Your task to perform on an android device: Open calendar and show me the third week of next month Image 0: 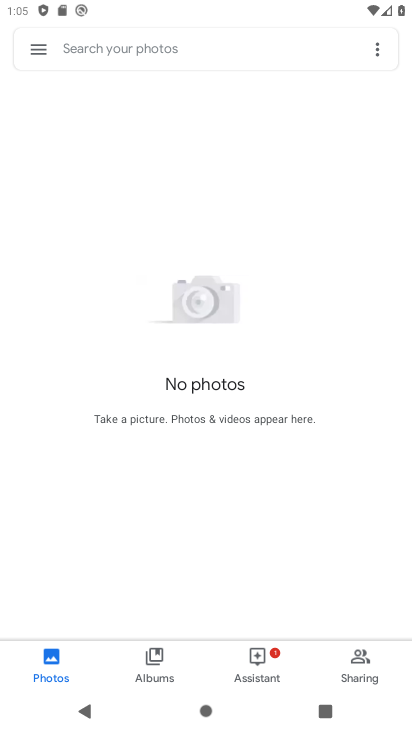
Step 0: press home button
Your task to perform on an android device: Open calendar and show me the third week of next month Image 1: 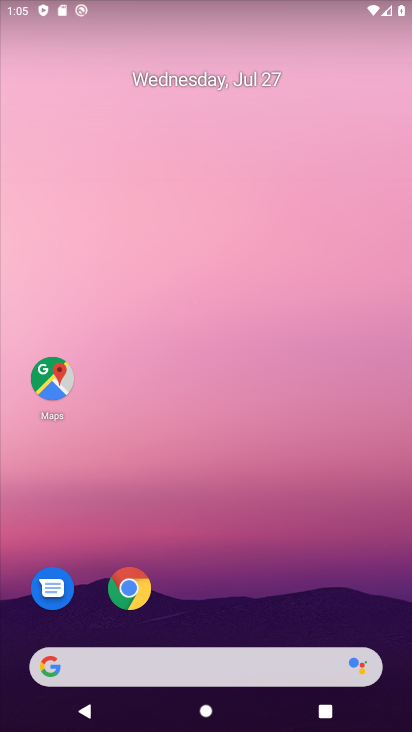
Step 1: drag from (184, 598) to (148, 137)
Your task to perform on an android device: Open calendar and show me the third week of next month Image 2: 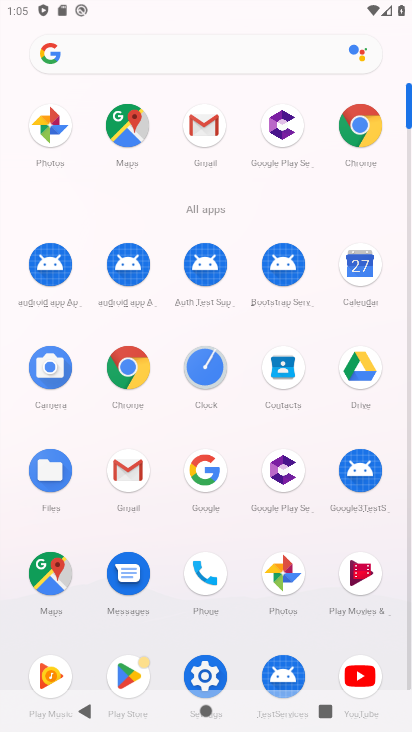
Step 2: click (364, 288)
Your task to perform on an android device: Open calendar and show me the third week of next month Image 3: 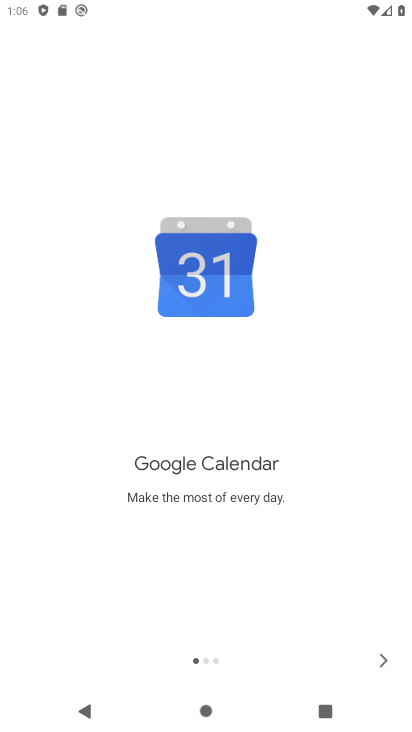
Step 3: click (383, 667)
Your task to perform on an android device: Open calendar and show me the third week of next month Image 4: 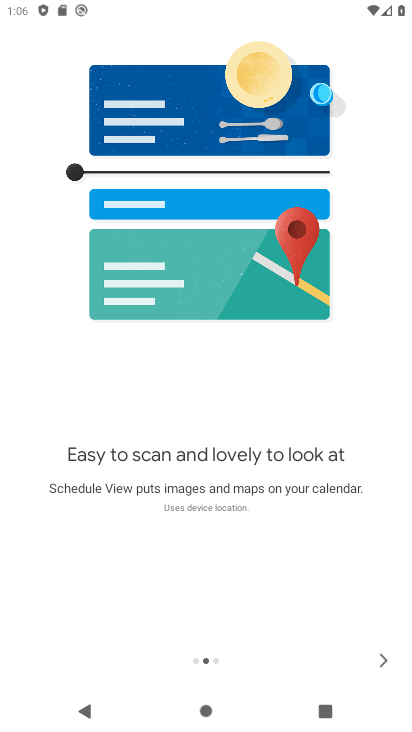
Step 4: click (383, 667)
Your task to perform on an android device: Open calendar and show me the third week of next month Image 5: 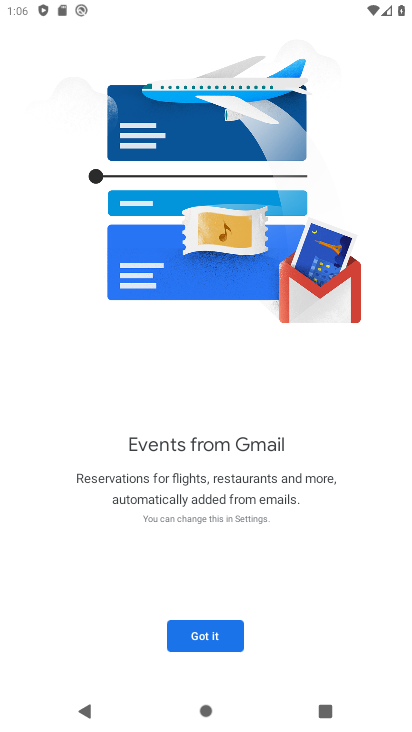
Step 5: click (205, 630)
Your task to perform on an android device: Open calendar and show me the third week of next month Image 6: 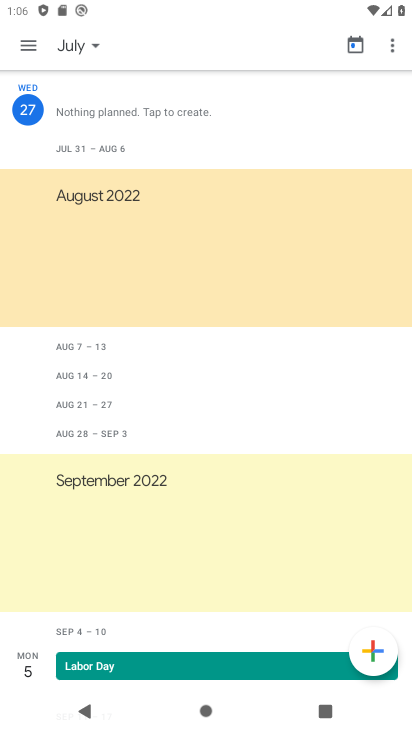
Step 6: click (91, 54)
Your task to perform on an android device: Open calendar and show me the third week of next month Image 7: 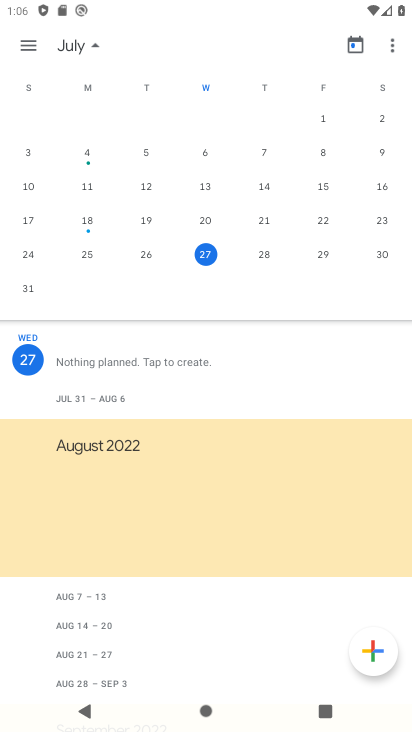
Step 7: drag from (348, 199) to (85, 187)
Your task to perform on an android device: Open calendar and show me the third week of next month Image 8: 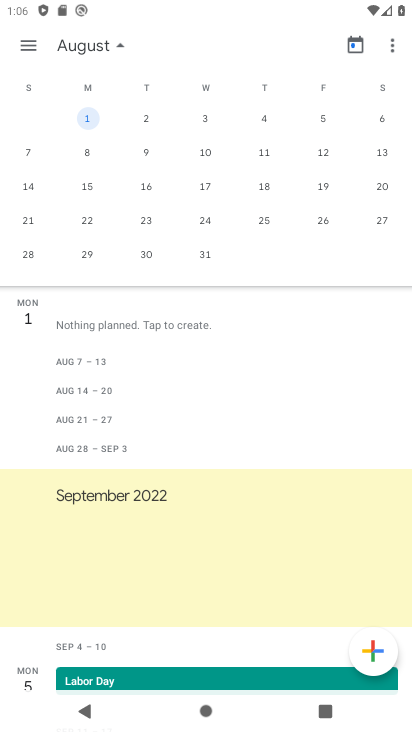
Step 8: click (28, 185)
Your task to perform on an android device: Open calendar and show me the third week of next month Image 9: 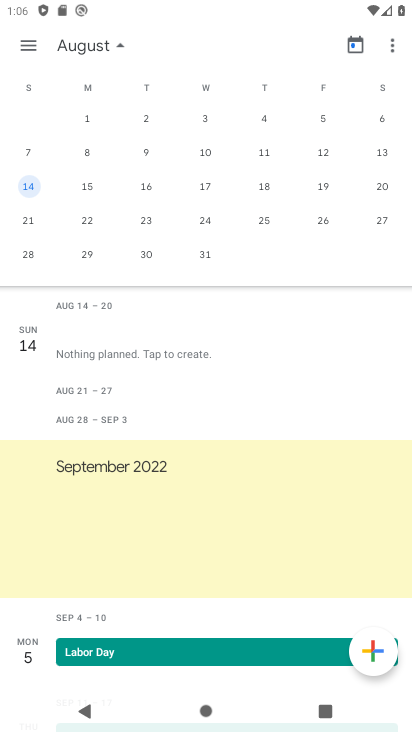
Step 9: task complete